Your task to perform on an android device: Open calendar and show me the third week of next month Image 0: 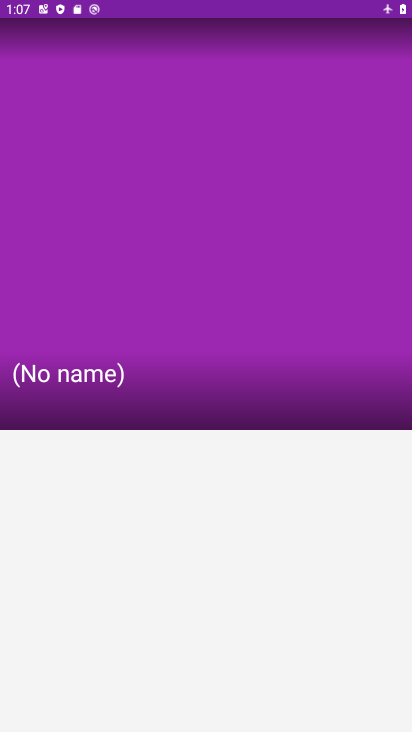
Step 0: drag from (211, 727) to (192, 240)
Your task to perform on an android device: Open calendar and show me the third week of next month Image 1: 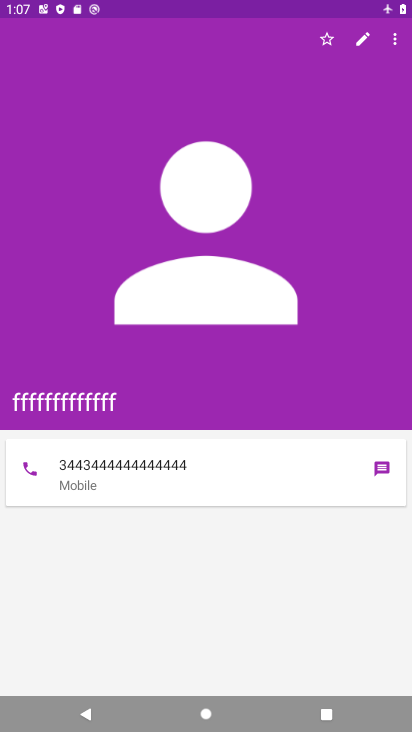
Step 1: press home button
Your task to perform on an android device: Open calendar and show me the third week of next month Image 2: 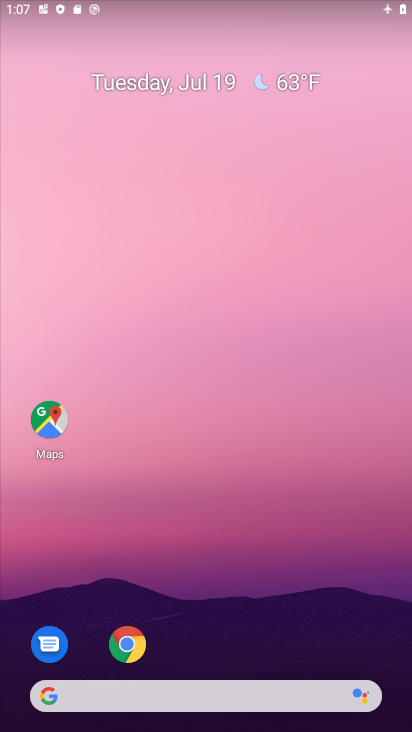
Step 2: drag from (226, 725) to (205, 282)
Your task to perform on an android device: Open calendar and show me the third week of next month Image 3: 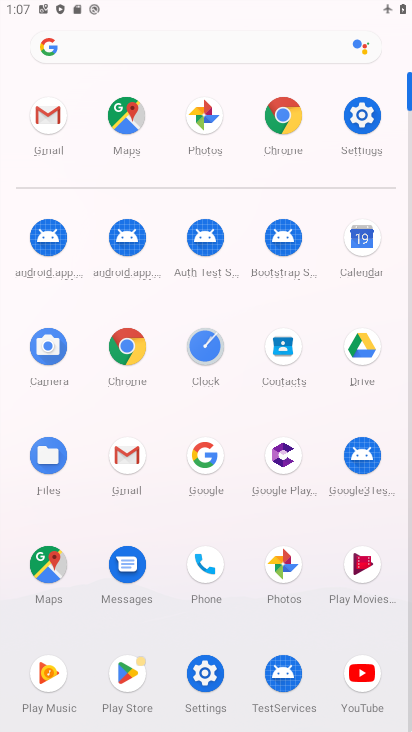
Step 3: click (359, 236)
Your task to perform on an android device: Open calendar and show me the third week of next month Image 4: 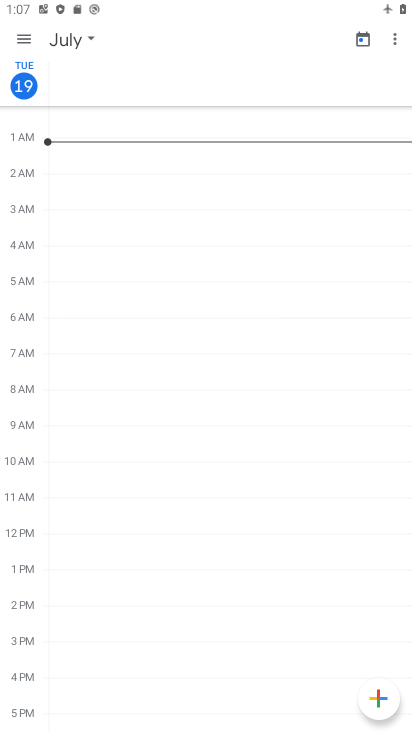
Step 4: click (91, 38)
Your task to perform on an android device: Open calendar and show me the third week of next month Image 5: 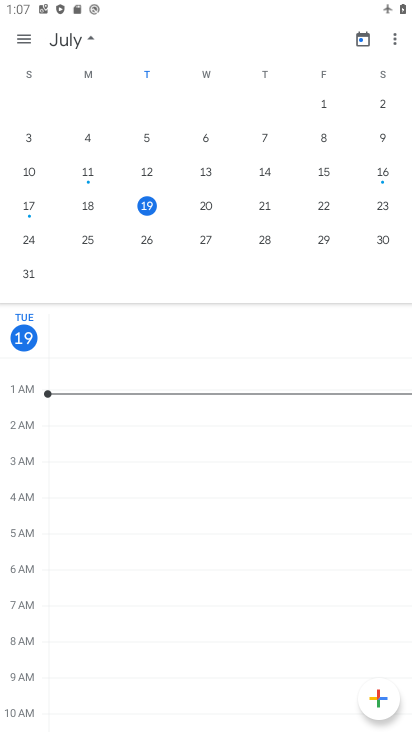
Step 5: drag from (336, 208) to (1, 239)
Your task to perform on an android device: Open calendar and show me the third week of next month Image 6: 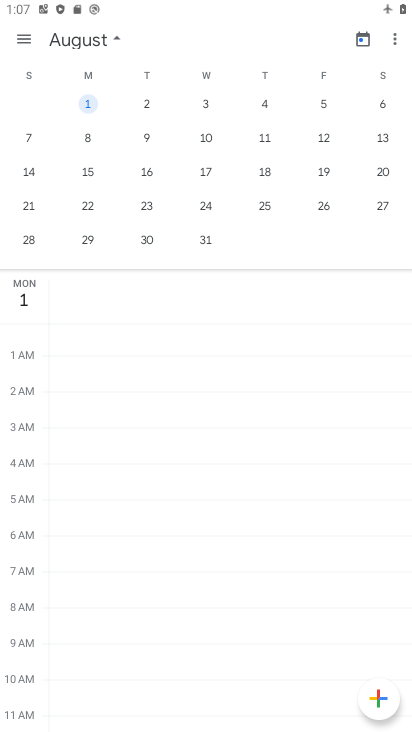
Step 6: click (84, 164)
Your task to perform on an android device: Open calendar and show me the third week of next month Image 7: 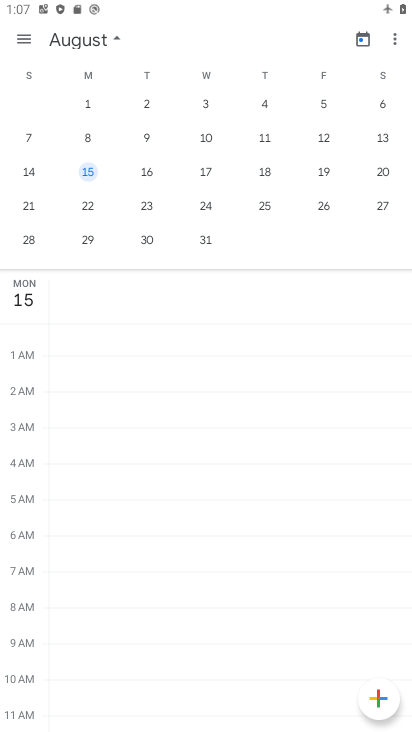
Step 7: click (20, 36)
Your task to perform on an android device: Open calendar and show me the third week of next month Image 8: 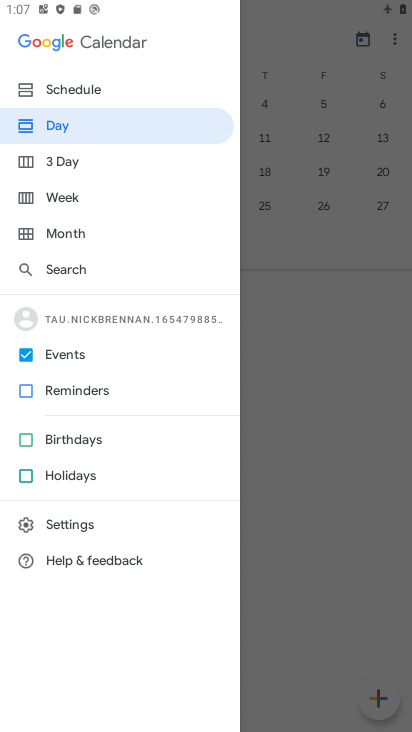
Step 8: click (58, 192)
Your task to perform on an android device: Open calendar and show me the third week of next month Image 9: 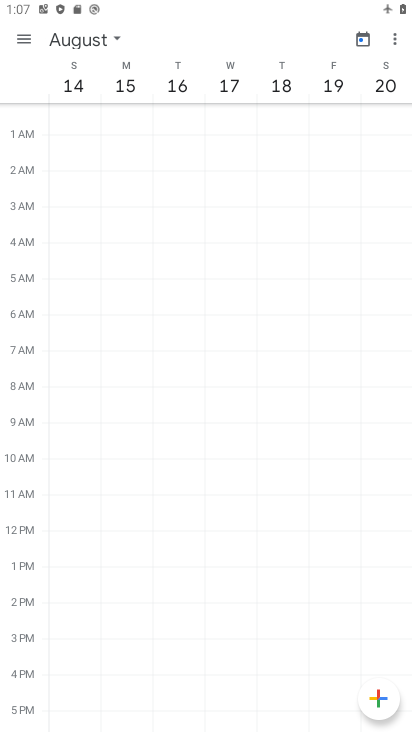
Step 9: task complete